Your task to perform on an android device: turn off location Image 0: 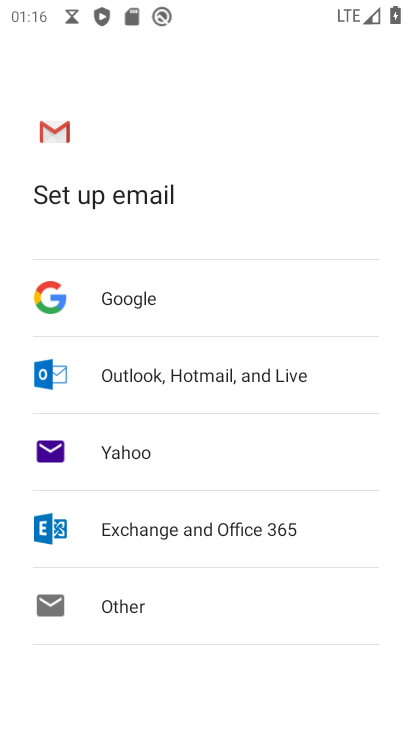
Step 0: press home button
Your task to perform on an android device: turn off location Image 1: 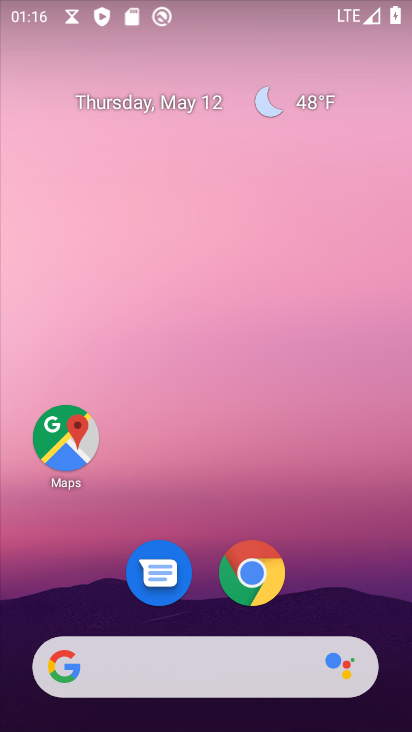
Step 1: drag from (326, 604) to (268, 232)
Your task to perform on an android device: turn off location Image 2: 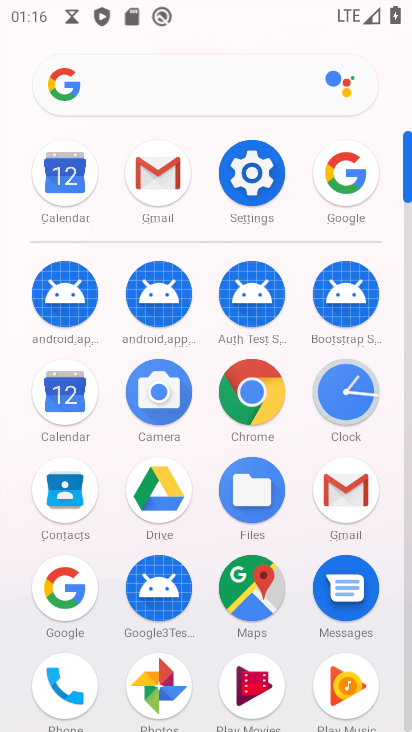
Step 2: click (257, 184)
Your task to perform on an android device: turn off location Image 3: 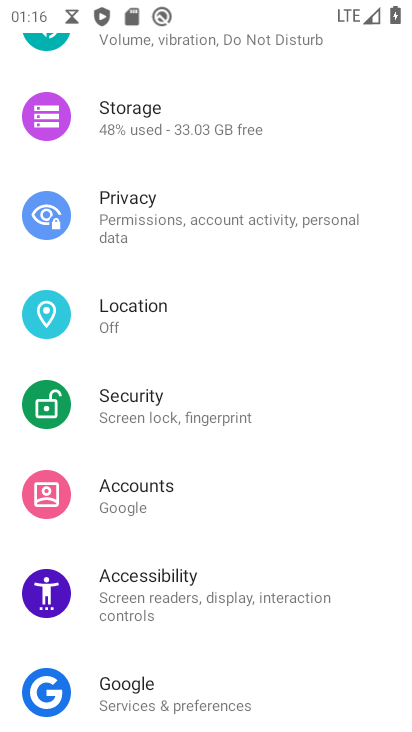
Step 3: click (197, 323)
Your task to perform on an android device: turn off location Image 4: 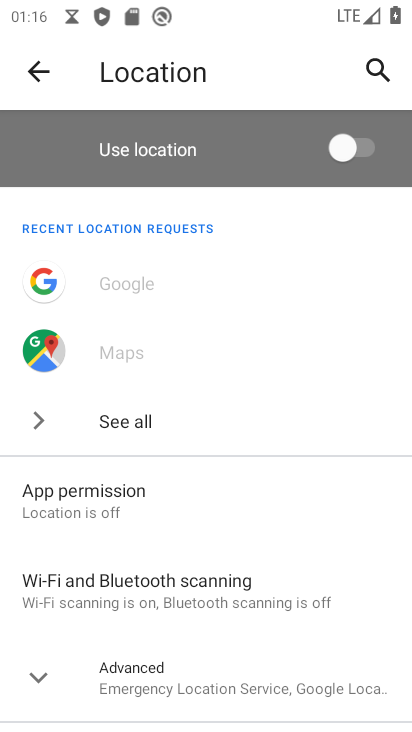
Step 4: task complete